Your task to perform on an android device: Go to sound settings Image 0: 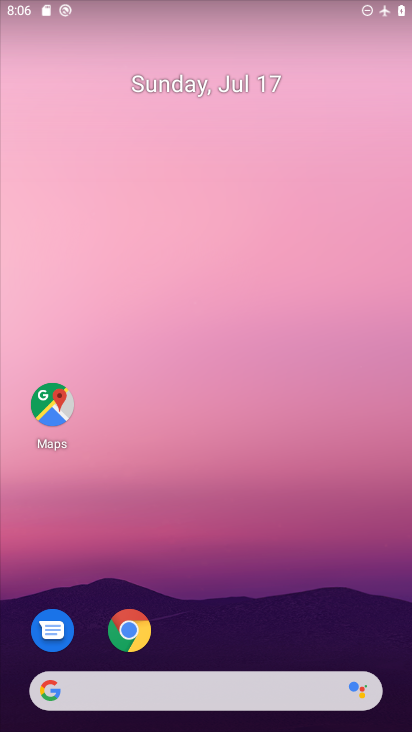
Step 0: drag from (368, 629) to (194, 40)
Your task to perform on an android device: Go to sound settings Image 1: 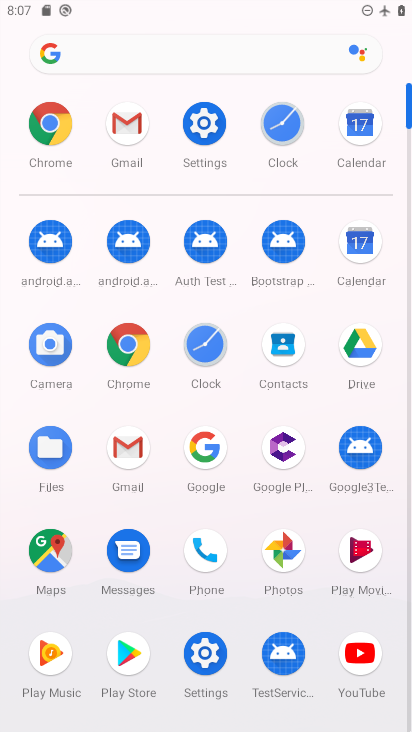
Step 1: click (218, 655)
Your task to perform on an android device: Go to sound settings Image 2: 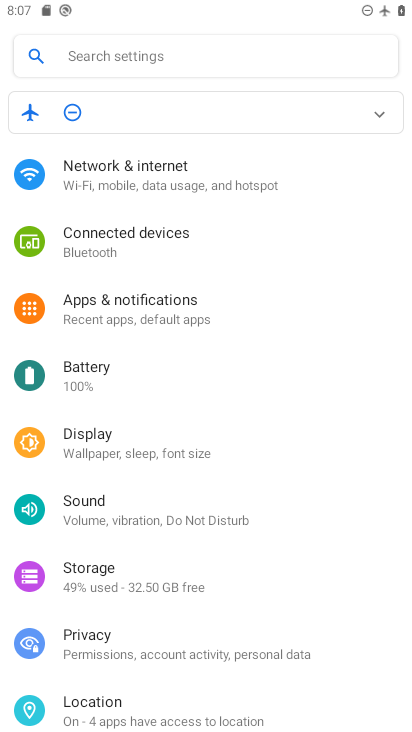
Step 2: click (102, 506)
Your task to perform on an android device: Go to sound settings Image 3: 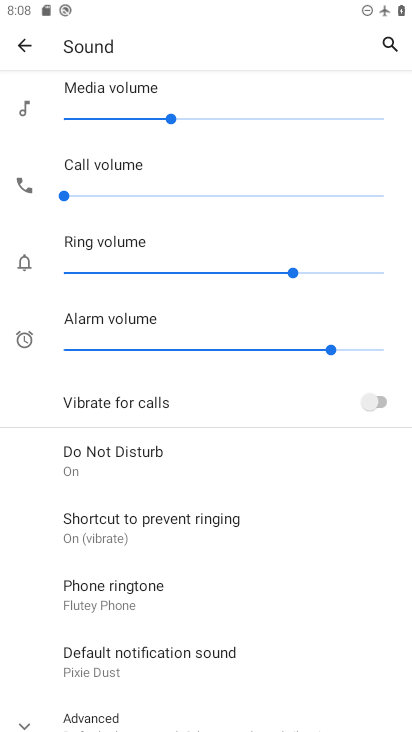
Step 3: task complete